Your task to perform on an android device: turn on priority inbox in the gmail app Image 0: 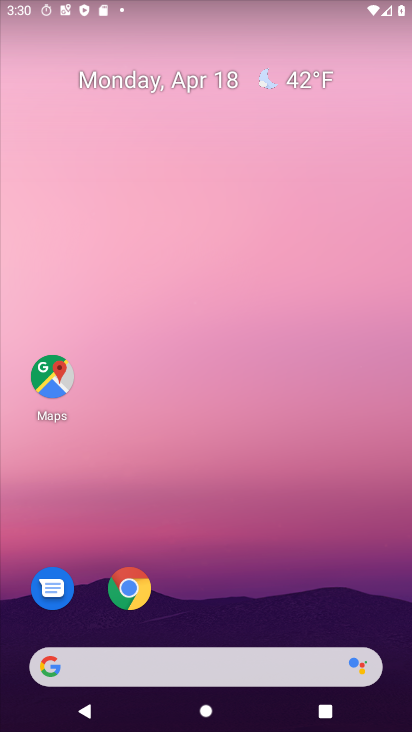
Step 0: drag from (247, 579) to (191, 113)
Your task to perform on an android device: turn on priority inbox in the gmail app Image 1: 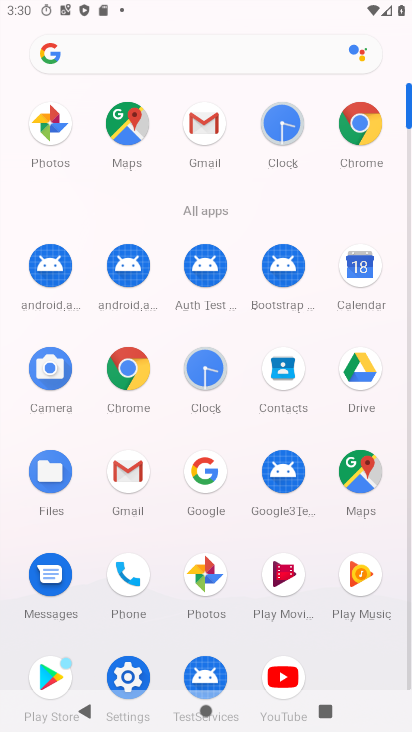
Step 1: click (187, 137)
Your task to perform on an android device: turn on priority inbox in the gmail app Image 2: 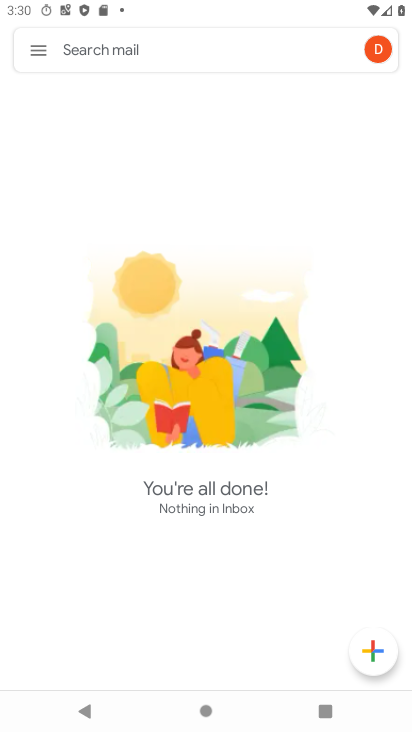
Step 2: click (43, 47)
Your task to perform on an android device: turn on priority inbox in the gmail app Image 3: 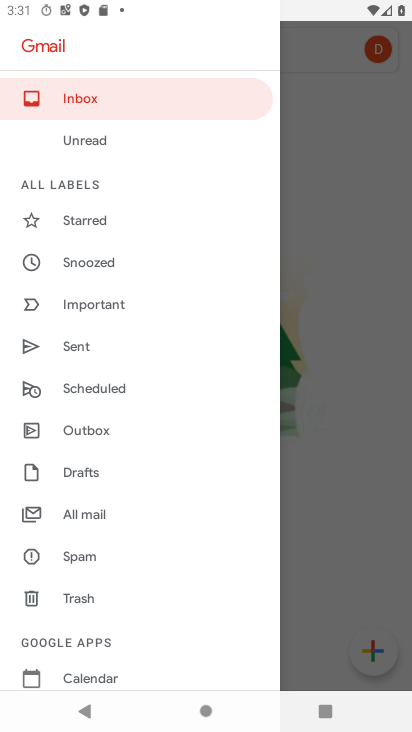
Step 3: drag from (179, 639) to (196, 107)
Your task to perform on an android device: turn on priority inbox in the gmail app Image 4: 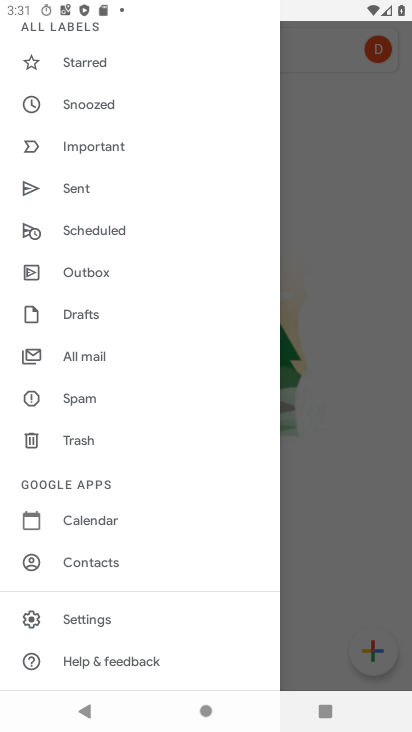
Step 4: click (58, 618)
Your task to perform on an android device: turn on priority inbox in the gmail app Image 5: 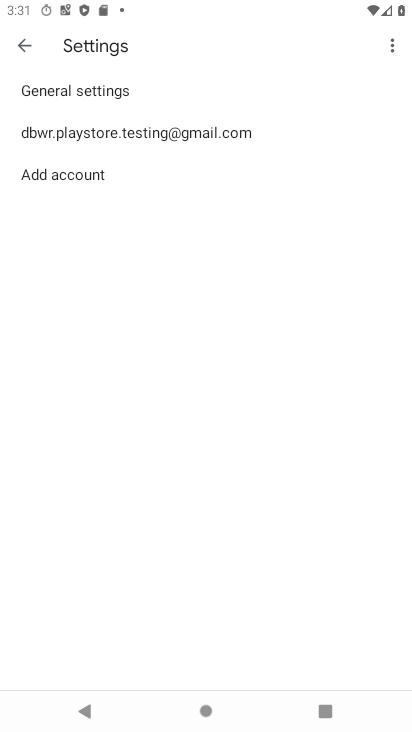
Step 5: click (207, 134)
Your task to perform on an android device: turn on priority inbox in the gmail app Image 6: 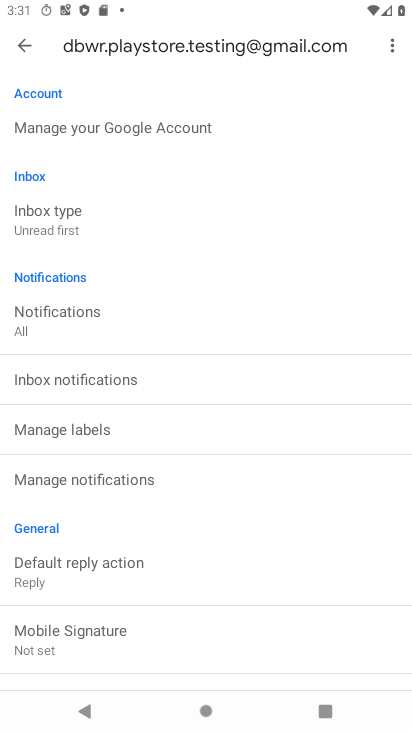
Step 6: click (91, 205)
Your task to perform on an android device: turn on priority inbox in the gmail app Image 7: 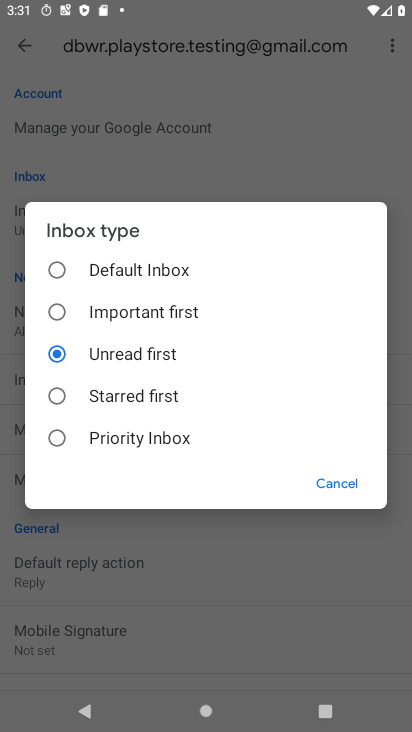
Step 7: click (60, 444)
Your task to perform on an android device: turn on priority inbox in the gmail app Image 8: 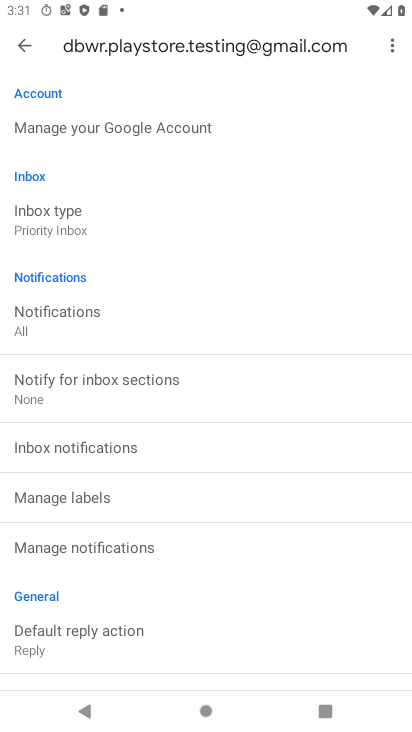
Step 8: task complete